Your task to perform on an android device: Open Chrome and go to settings Image 0: 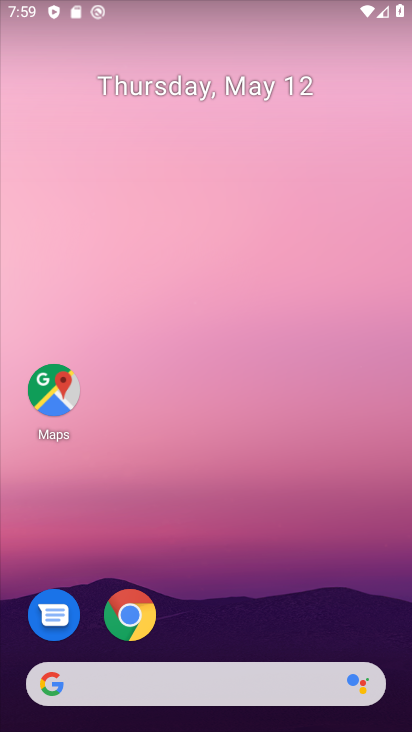
Step 0: drag from (240, 553) to (242, 24)
Your task to perform on an android device: Open Chrome and go to settings Image 1: 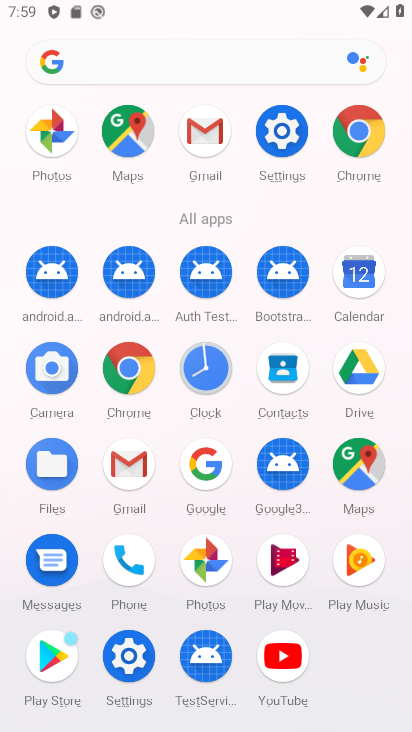
Step 1: drag from (14, 516) to (11, 251)
Your task to perform on an android device: Open Chrome and go to settings Image 2: 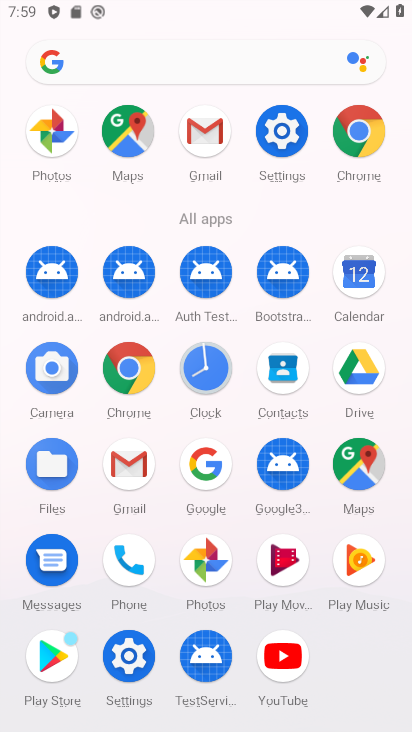
Step 2: click (127, 367)
Your task to perform on an android device: Open Chrome and go to settings Image 3: 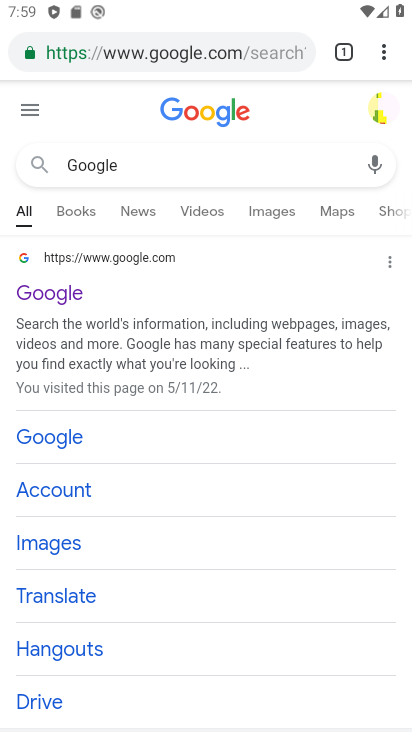
Step 3: click (54, 289)
Your task to perform on an android device: Open Chrome and go to settings Image 4: 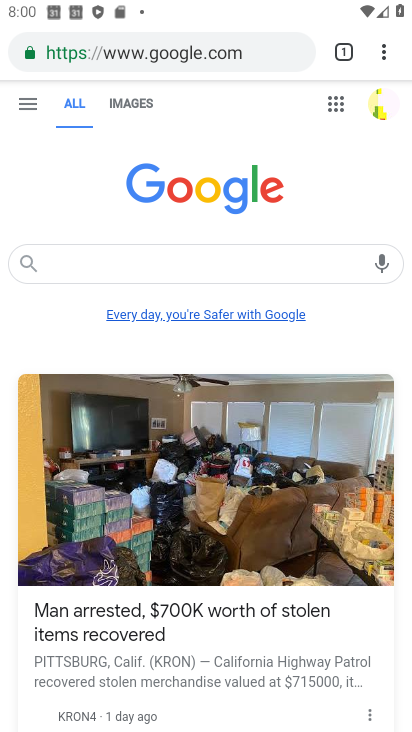
Step 4: task complete